Your task to perform on an android device: What is the recent news? Image 0: 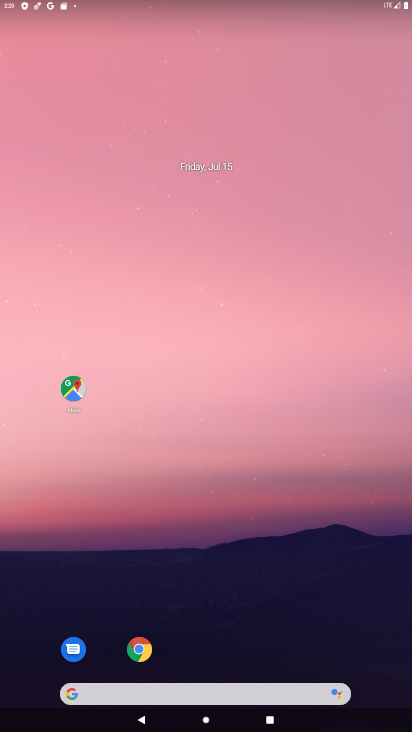
Step 0: drag from (197, 659) to (196, 181)
Your task to perform on an android device: What is the recent news? Image 1: 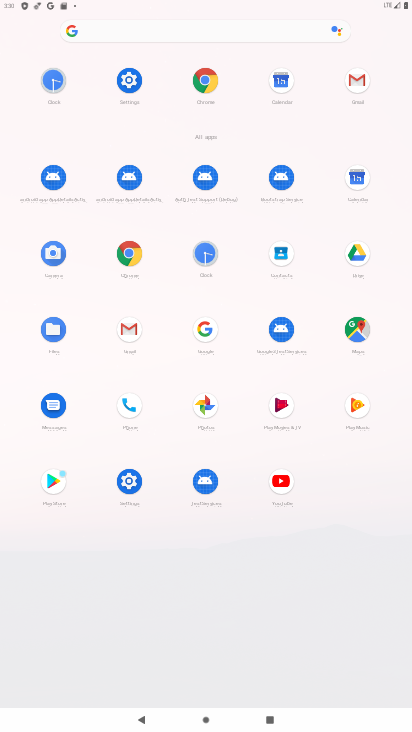
Step 1: click (203, 328)
Your task to perform on an android device: What is the recent news? Image 2: 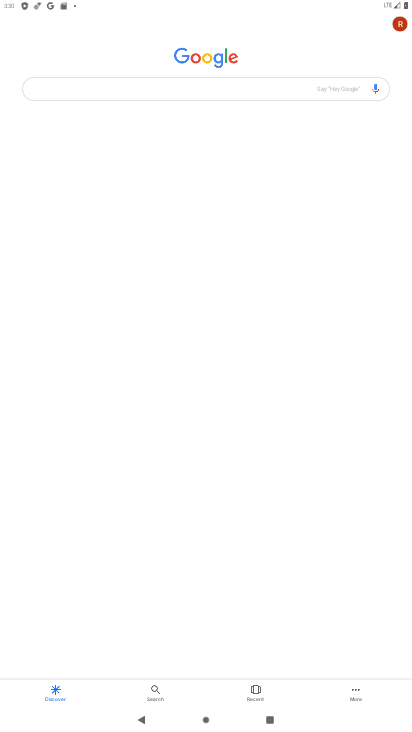
Step 2: click (148, 92)
Your task to perform on an android device: What is the recent news? Image 3: 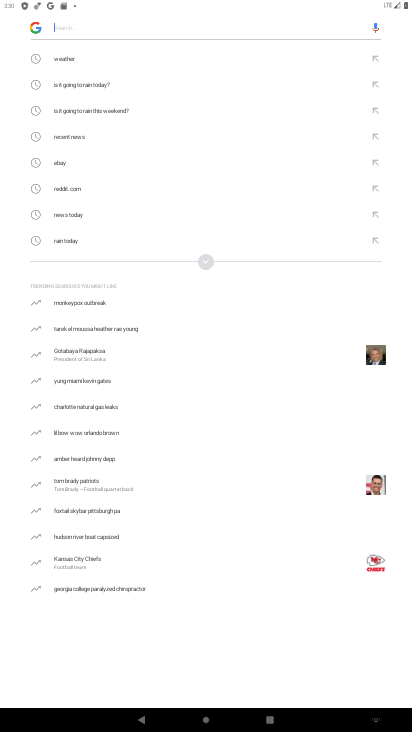
Step 3: type "news"
Your task to perform on an android device: What is the recent news? Image 4: 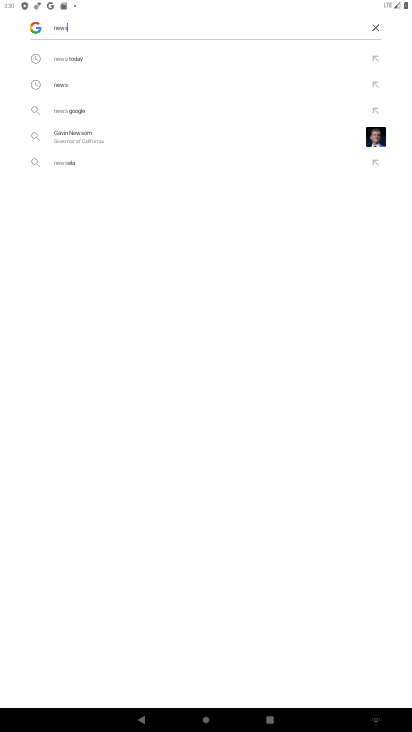
Step 4: click (81, 82)
Your task to perform on an android device: What is the recent news? Image 5: 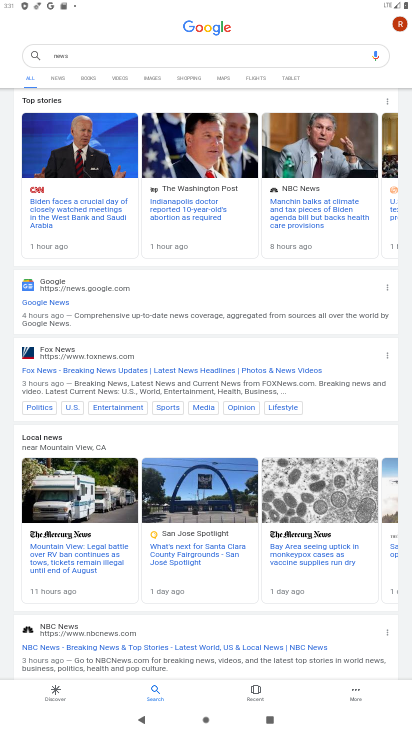
Step 5: click (58, 83)
Your task to perform on an android device: What is the recent news? Image 6: 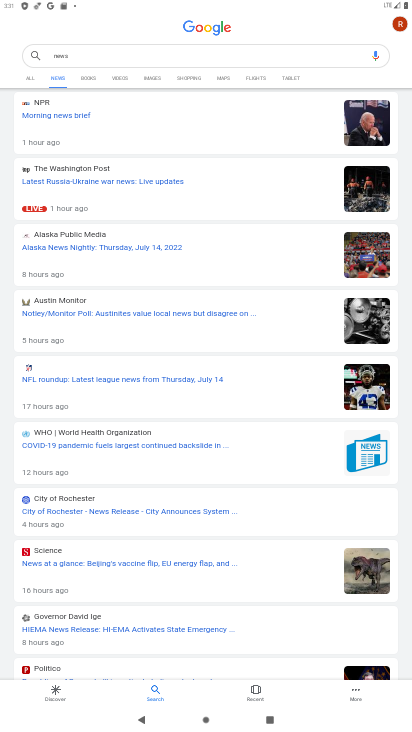
Step 6: task complete